Your task to perform on an android device: Open maps Image 0: 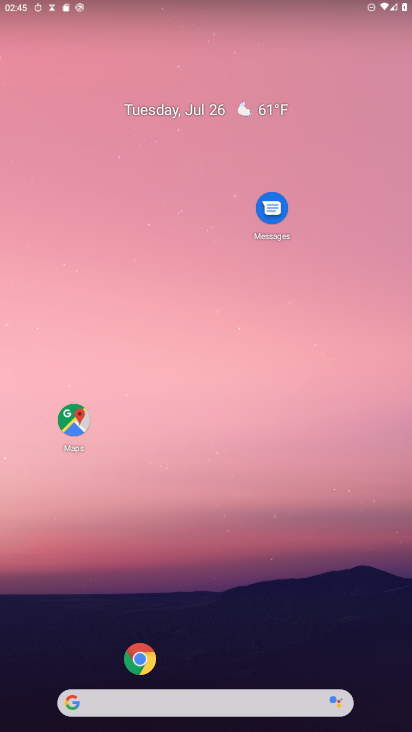
Step 0: click (72, 431)
Your task to perform on an android device: Open maps Image 1: 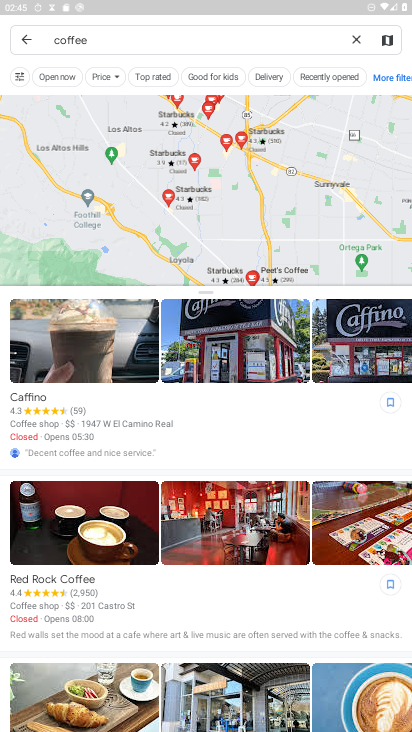
Step 1: click (27, 40)
Your task to perform on an android device: Open maps Image 2: 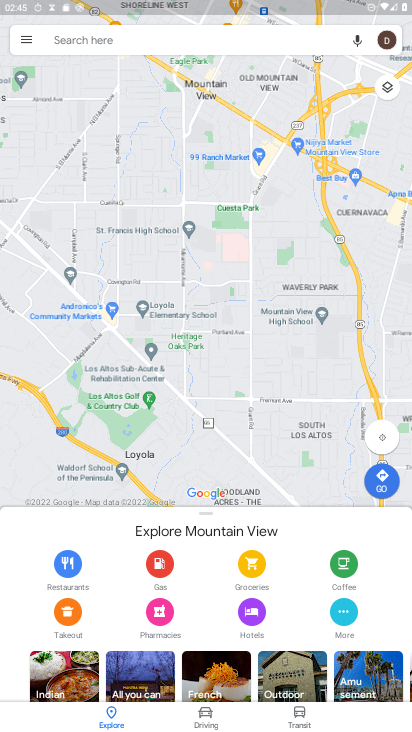
Step 2: task complete